Your task to perform on an android device: Search for pizza restaurants on Maps Image 0: 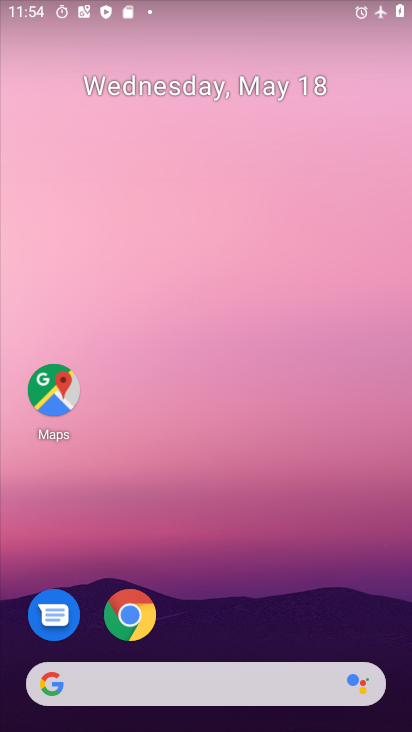
Step 0: click (57, 391)
Your task to perform on an android device: Search for pizza restaurants on Maps Image 1: 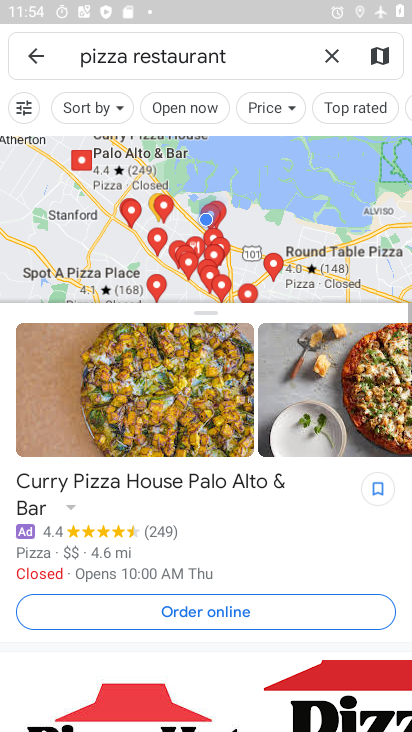
Step 1: task complete